Your task to perform on an android device: move an email to a new category in the gmail app Image 0: 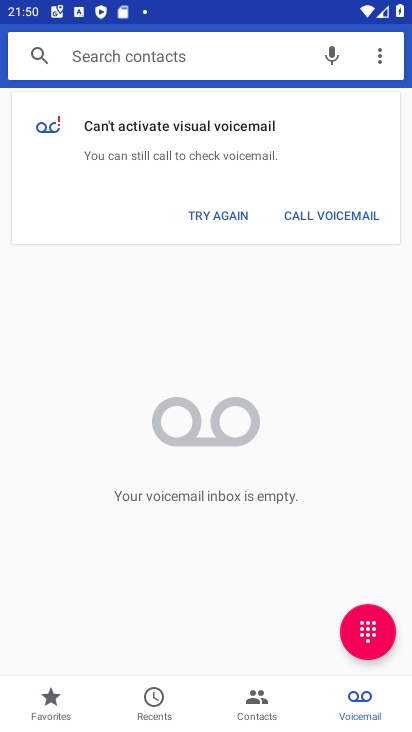
Step 0: press home button
Your task to perform on an android device: move an email to a new category in the gmail app Image 1: 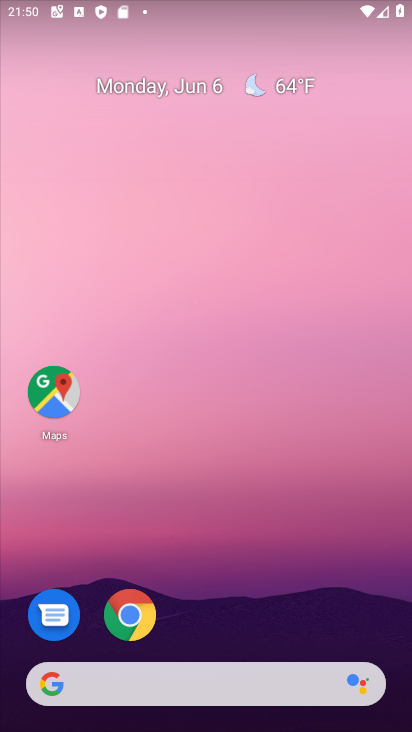
Step 1: drag from (397, 706) to (321, 157)
Your task to perform on an android device: move an email to a new category in the gmail app Image 2: 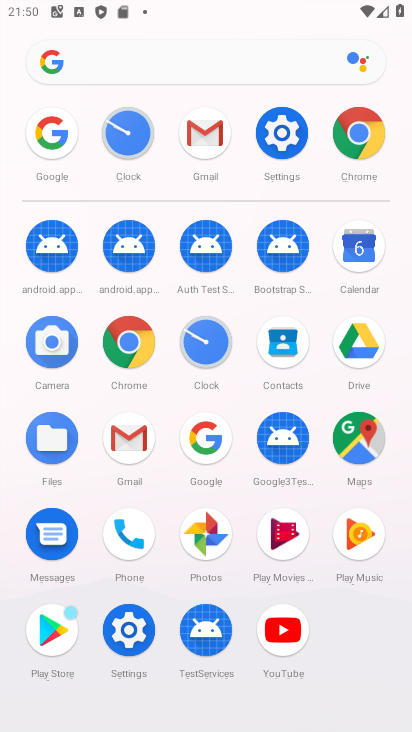
Step 2: click (191, 137)
Your task to perform on an android device: move an email to a new category in the gmail app Image 3: 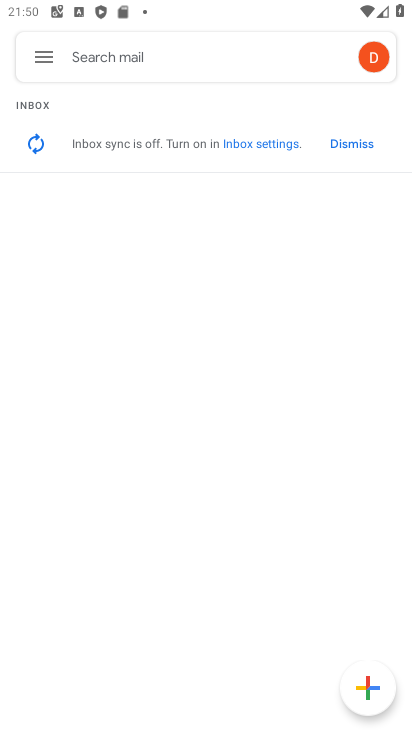
Step 3: click (41, 57)
Your task to perform on an android device: move an email to a new category in the gmail app Image 4: 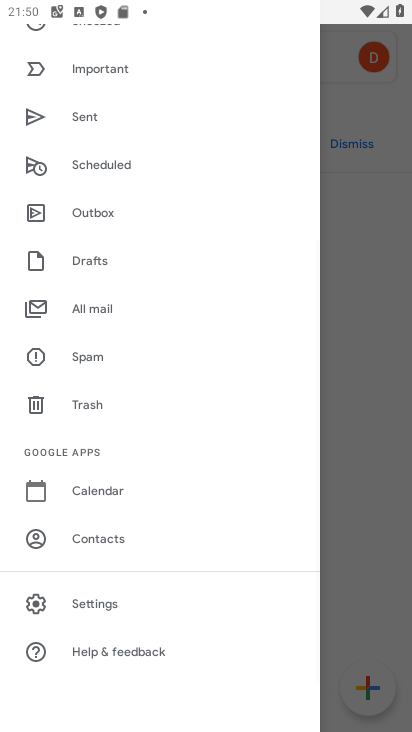
Step 4: drag from (193, 128) to (230, 561)
Your task to perform on an android device: move an email to a new category in the gmail app Image 5: 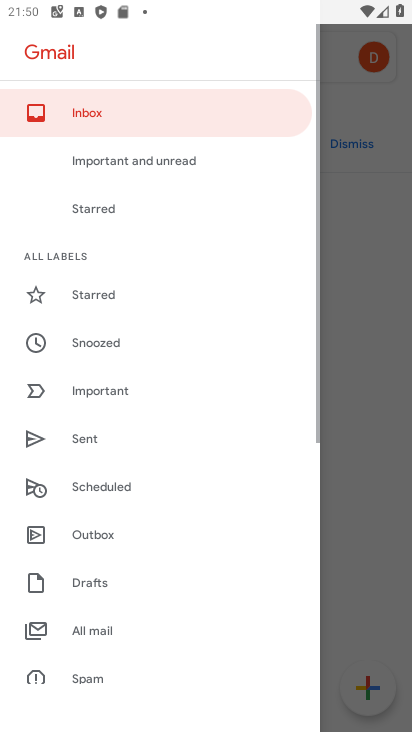
Step 5: click (96, 118)
Your task to perform on an android device: move an email to a new category in the gmail app Image 6: 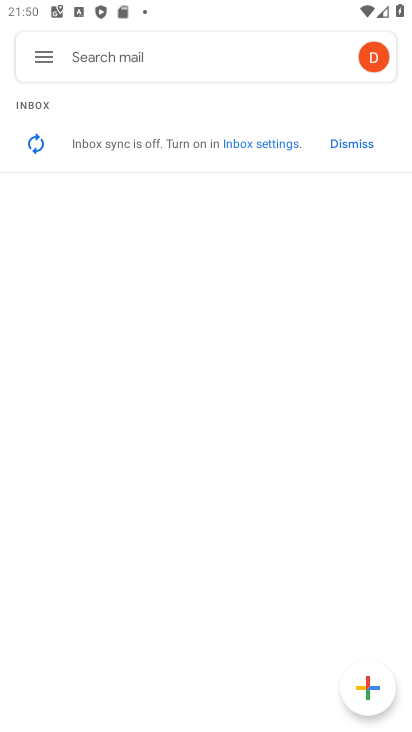
Step 6: task complete